Your task to perform on an android device: Go to notification settings Image 0: 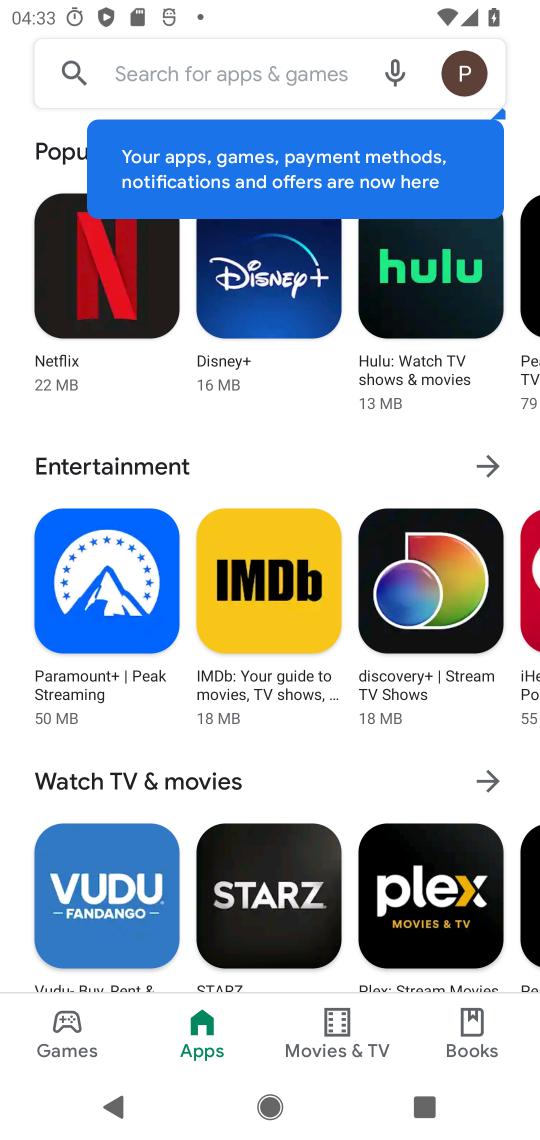
Step 0: press home button
Your task to perform on an android device: Go to notification settings Image 1: 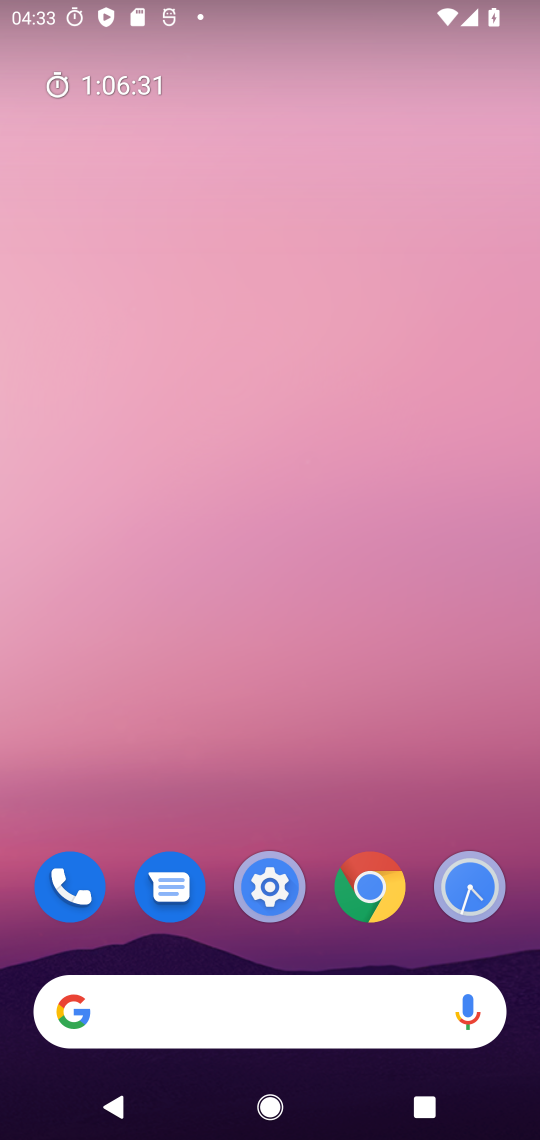
Step 1: drag from (409, 812) to (413, 205)
Your task to perform on an android device: Go to notification settings Image 2: 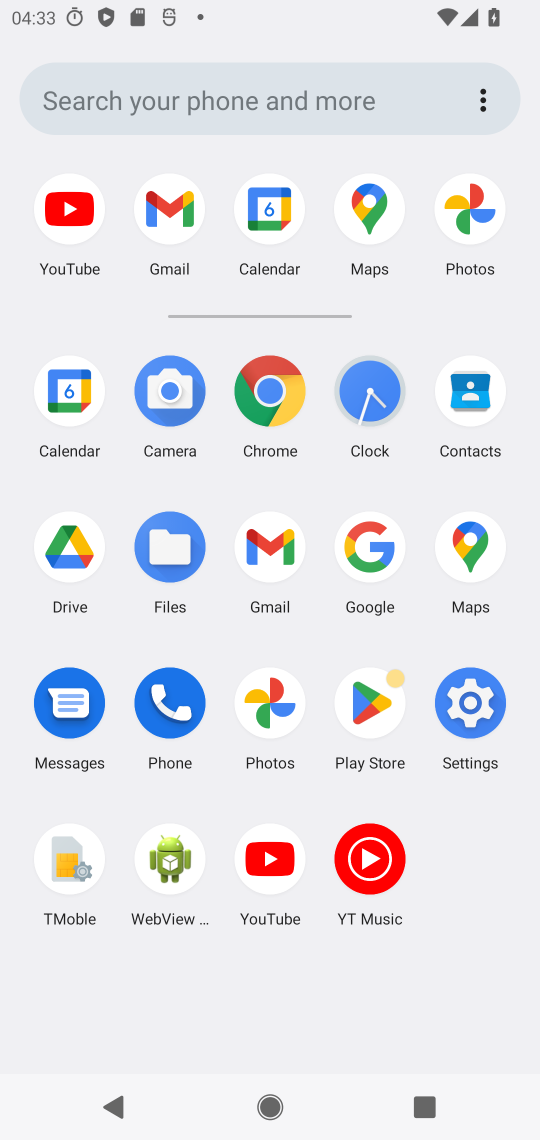
Step 2: click (478, 703)
Your task to perform on an android device: Go to notification settings Image 3: 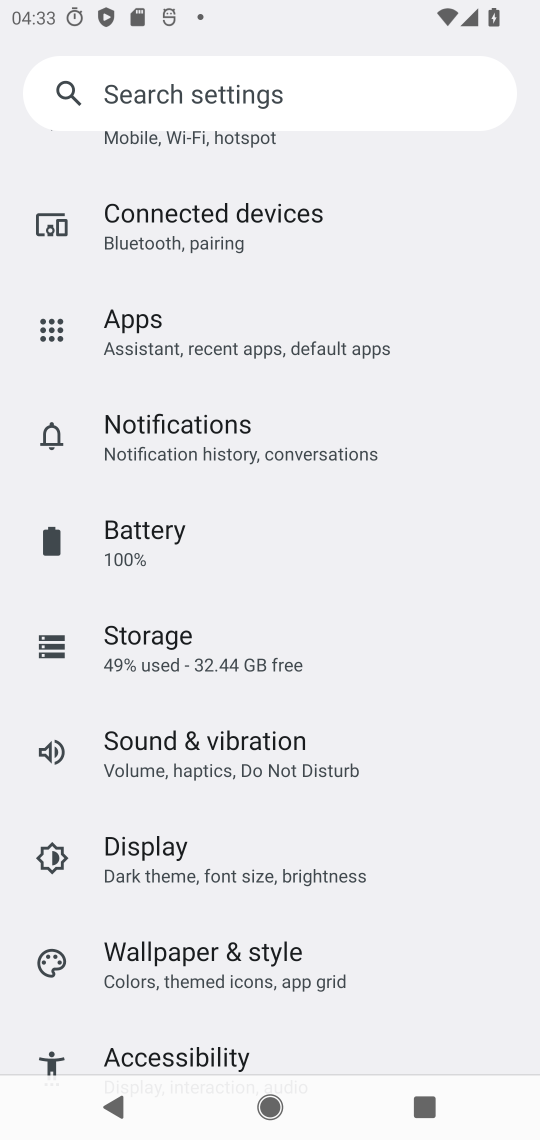
Step 3: drag from (486, 626) to (499, 517)
Your task to perform on an android device: Go to notification settings Image 4: 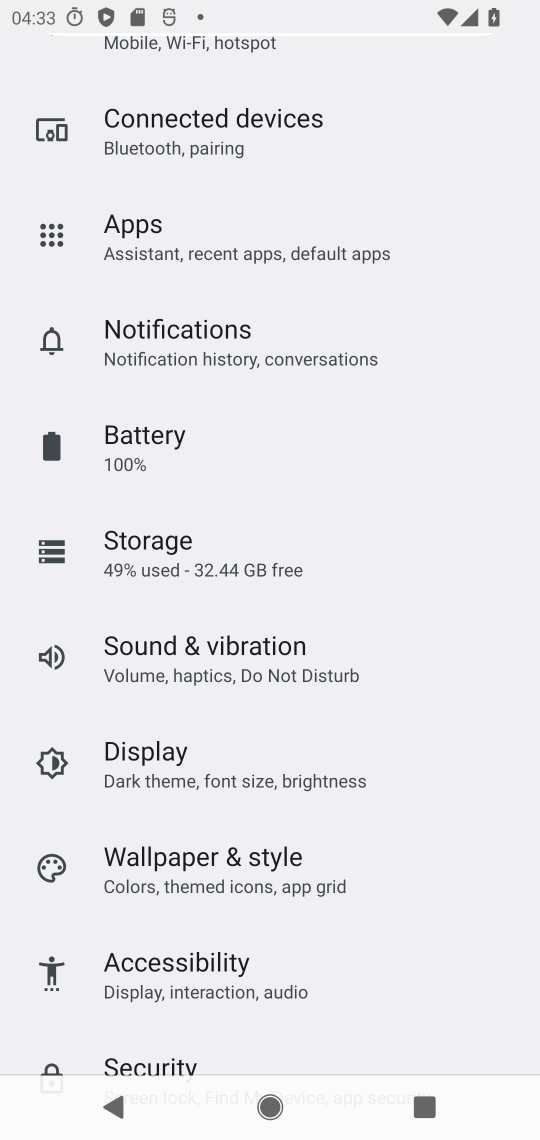
Step 4: drag from (470, 877) to (471, 565)
Your task to perform on an android device: Go to notification settings Image 5: 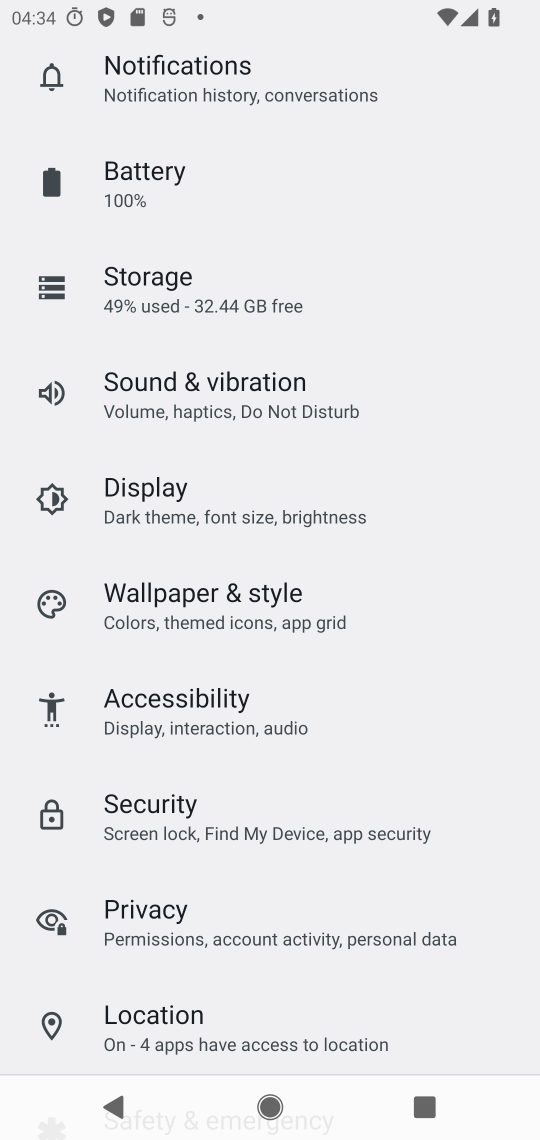
Step 5: drag from (451, 738) to (453, 559)
Your task to perform on an android device: Go to notification settings Image 6: 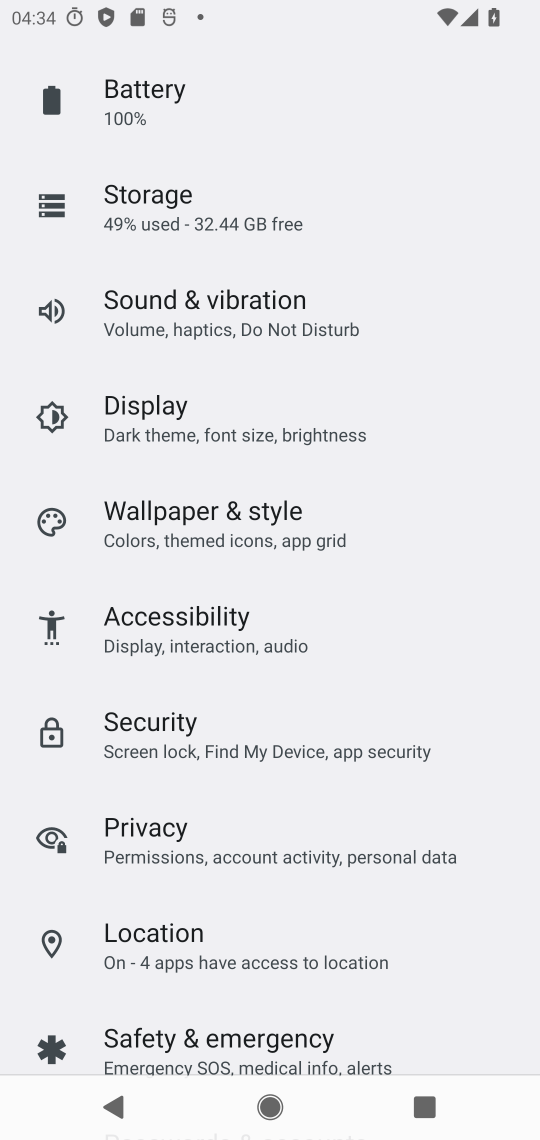
Step 6: drag from (468, 796) to (474, 496)
Your task to perform on an android device: Go to notification settings Image 7: 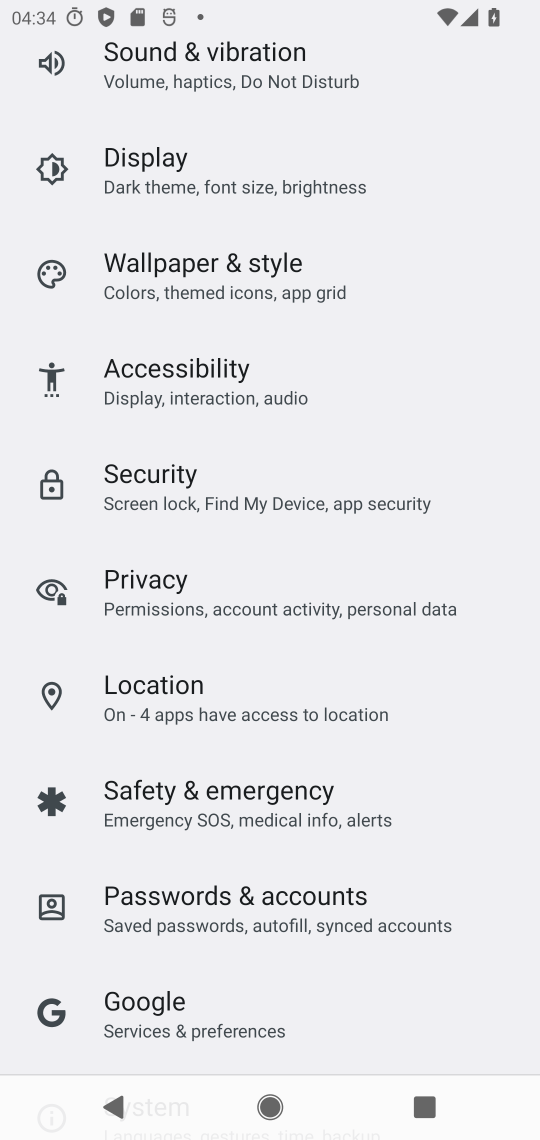
Step 7: drag from (486, 324) to (463, 563)
Your task to perform on an android device: Go to notification settings Image 8: 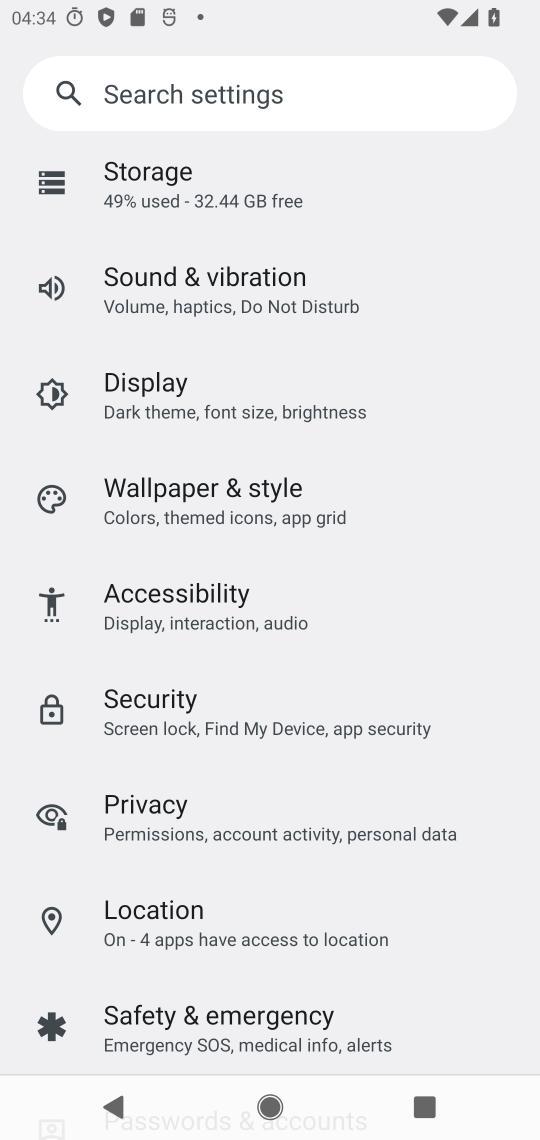
Step 8: drag from (446, 357) to (443, 572)
Your task to perform on an android device: Go to notification settings Image 9: 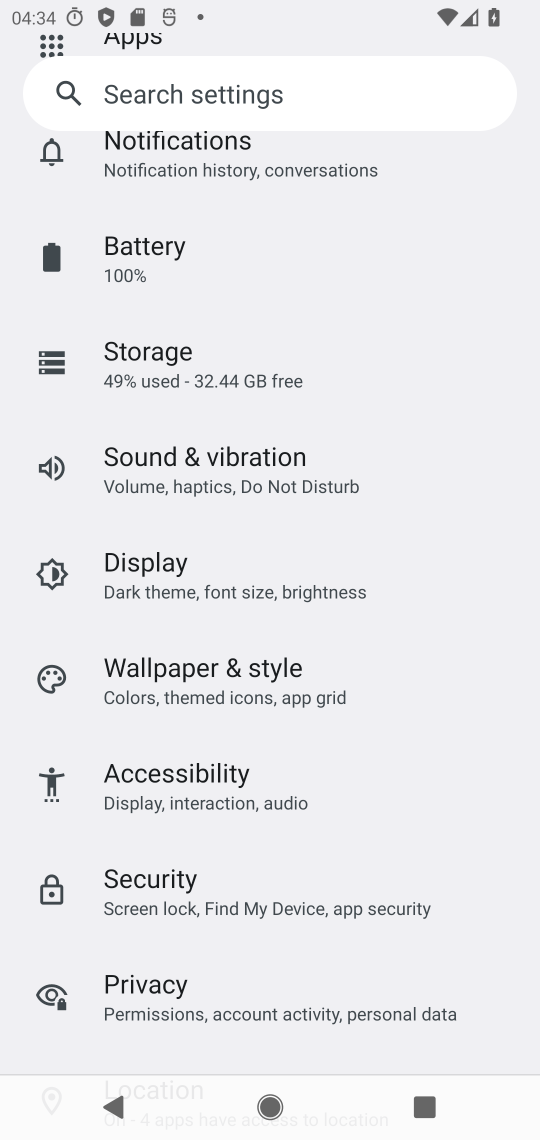
Step 9: drag from (414, 308) to (422, 469)
Your task to perform on an android device: Go to notification settings Image 10: 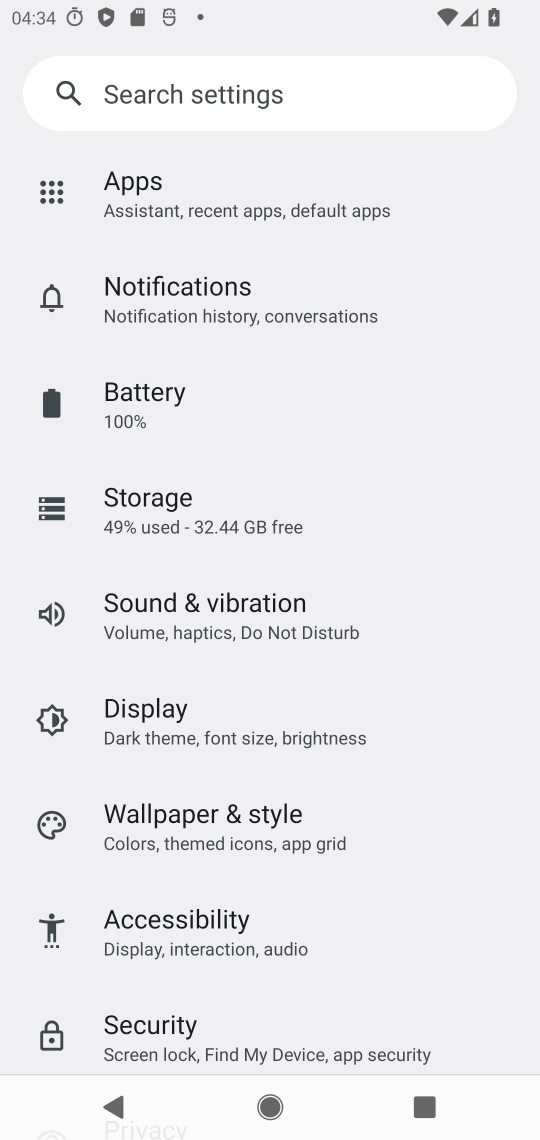
Step 10: drag from (475, 257) to (488, 454)
Your task to perform on an android device: Go to notification settings Image 11: 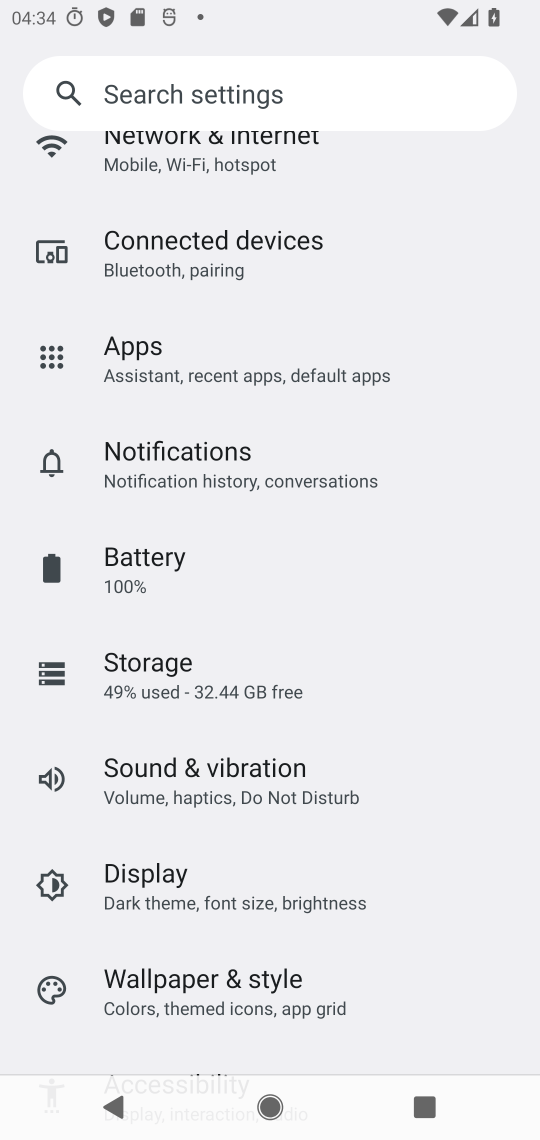
Step 11: drag from (465, 263) to (488, 567)
Your task to perform on an android device: Go to notification settings Image 12: 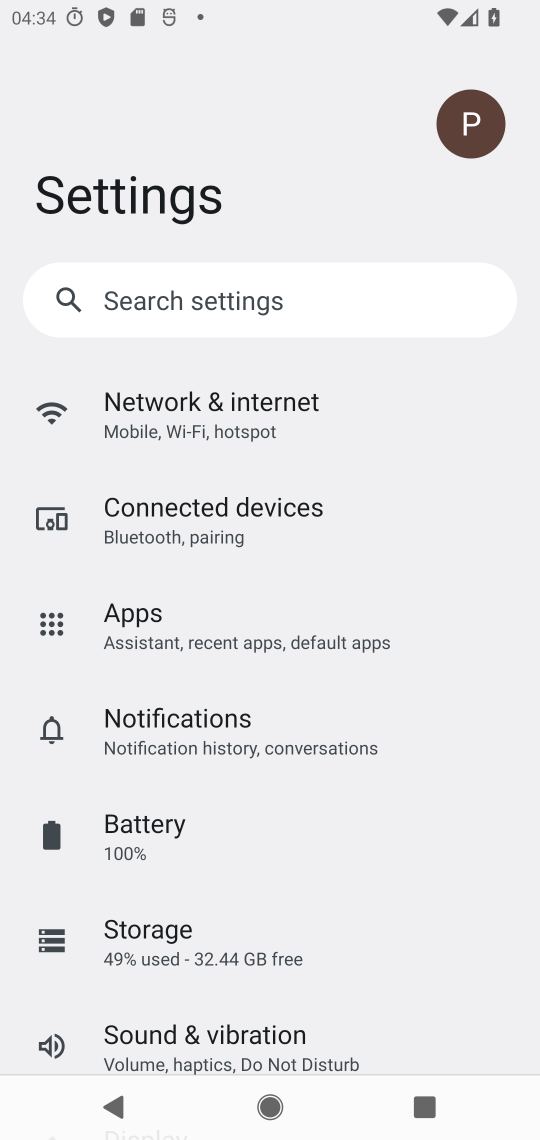
Step 12: click (312, 734)
Your task to perform on an android device: Go to notification settings Image 13: 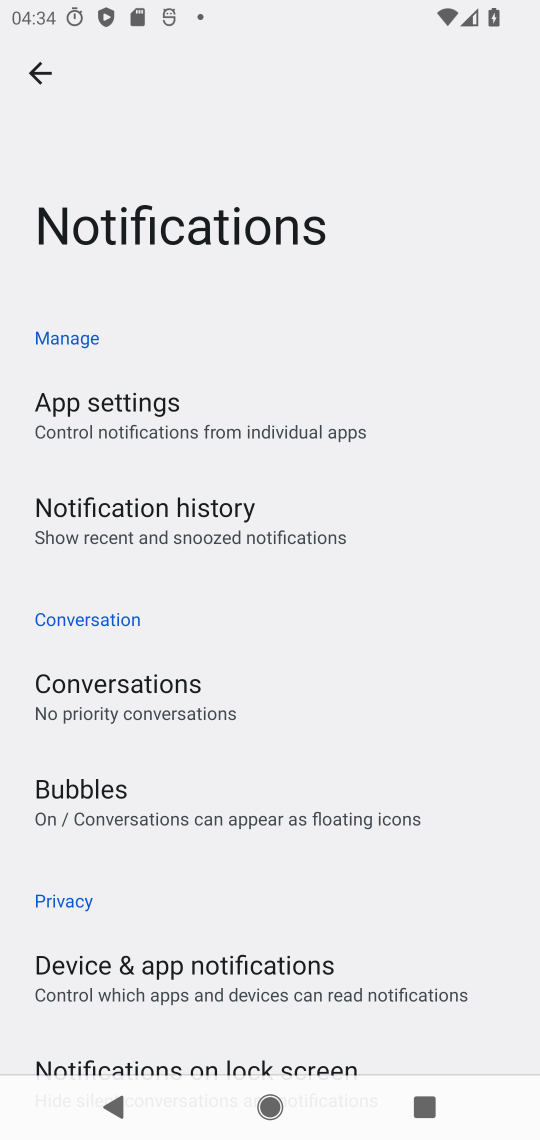
Step 13: task complete